Your task to perform on an android device: Find coffee shops on Maps Image 0: 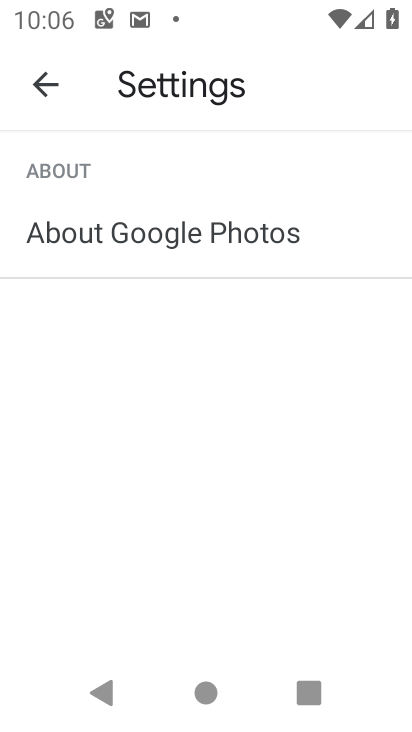
Step 0: press home button
Your task to perform on an android device: Find coffee shops on Maps Image 1: 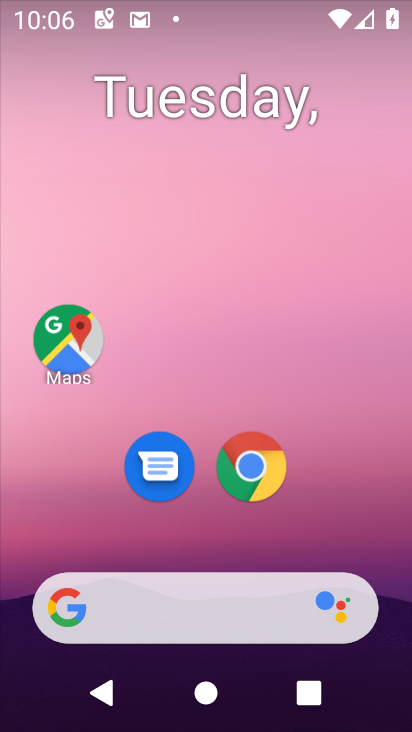
Step 1: drag from (235, 656) to (252, 173)
Your task to perform on an android device: Find coffee shops on Maps Image 2: 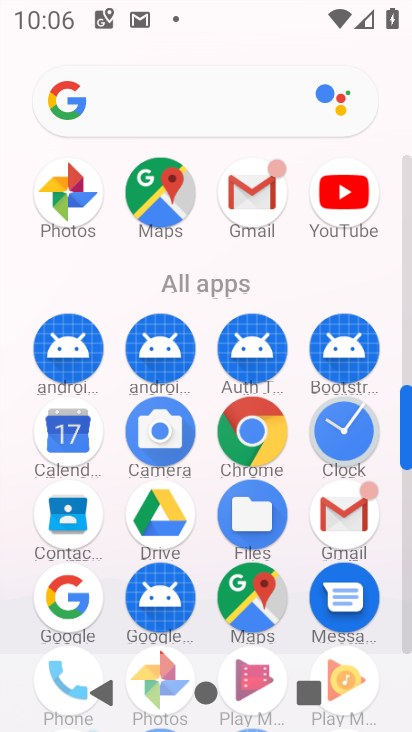
Step 2: click (245, 611)
Your task to perform on an android device: Find coffee shops on Maps Image 3: 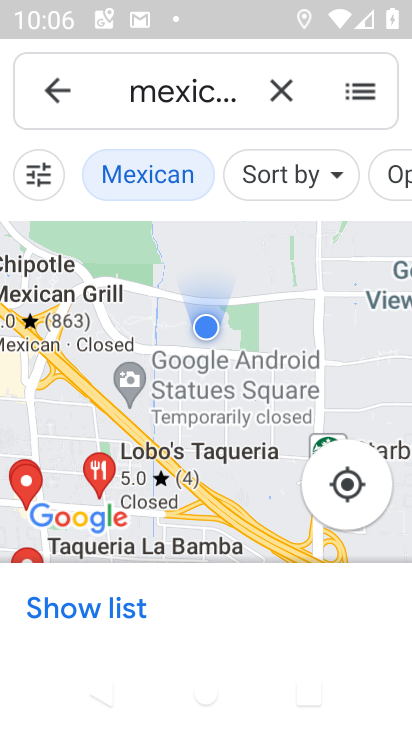
Step 3: click (261, 90)
Your task to perform on an android device: Find coffee shops on Maps Image 4: 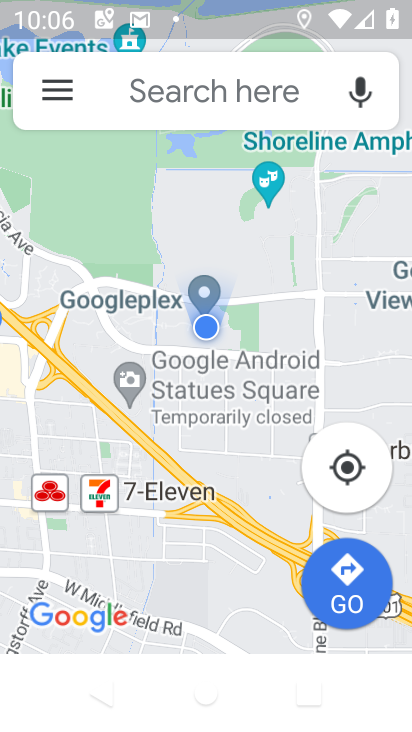
Step 4: click (206, 100)
Your task to perform on an android device: Find coffee shops on Maps Image 5: 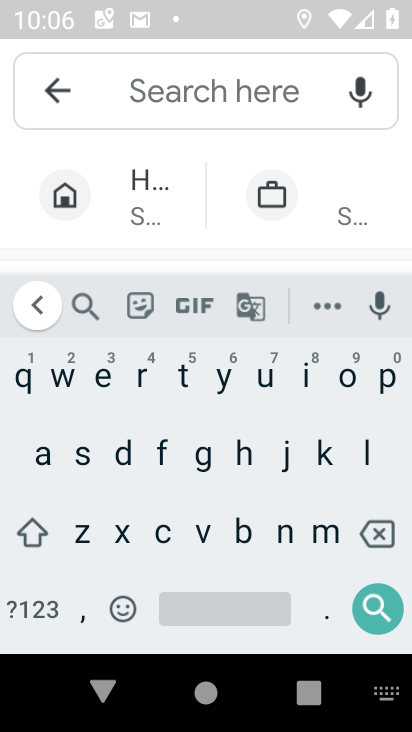
Step 5: click (169, 541)
Your task to perform on an android device: Find coffee shops on Maps Image 6: 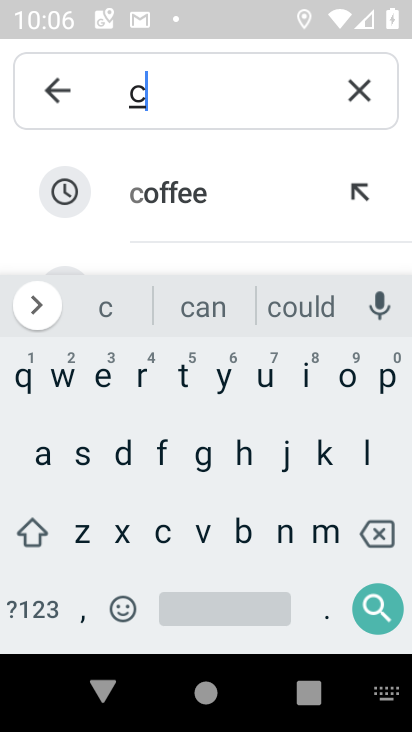
Step 6: click (221, 198)
Your task to perform on an android device: Find coffee shops on Maps Image 7: 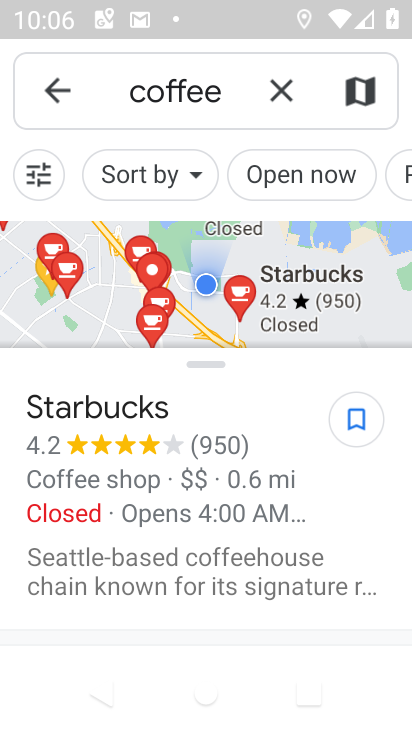
Step 7: click (106, 282)
Your task to perform on an android device: Find coffee shops on Maps Image 8: 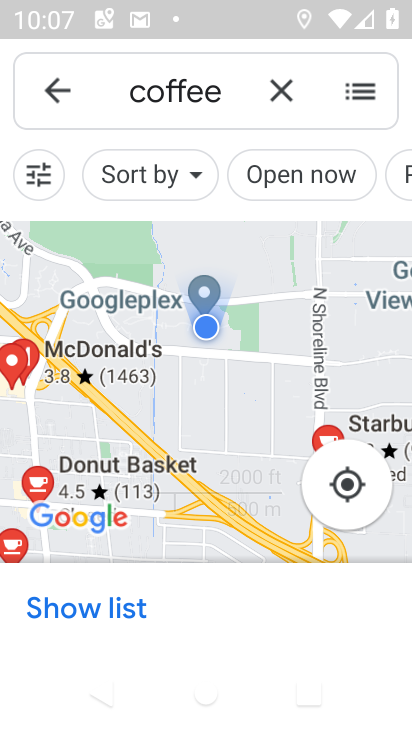
Step 8: task complete